Your task to perform on an android device: turn off data saver in the chrome app Image 0: 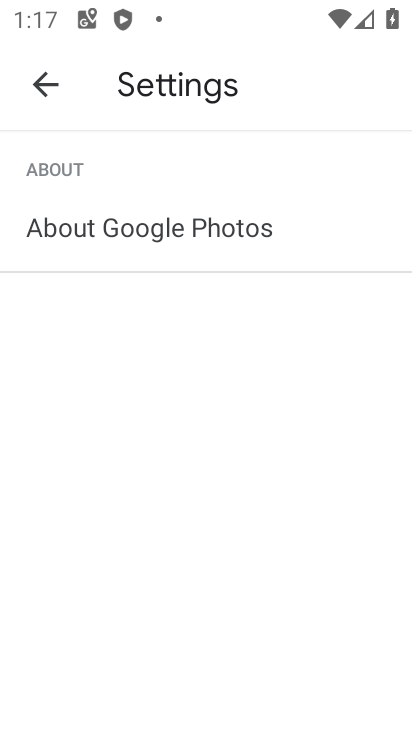
Step 0: press home button
Your task to perform on an android device: turn off data saver in the chrome app Image 1: 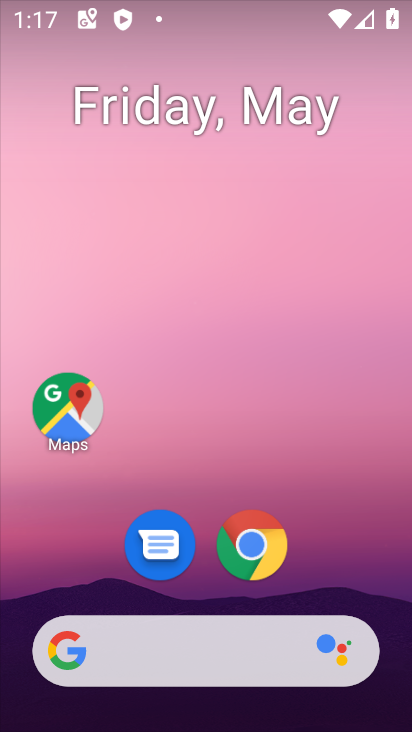
Step 1: drag from (319, 438) to (196, 7)
Your task to perform on an android device: turn off data saver in the chrome app Image 2: 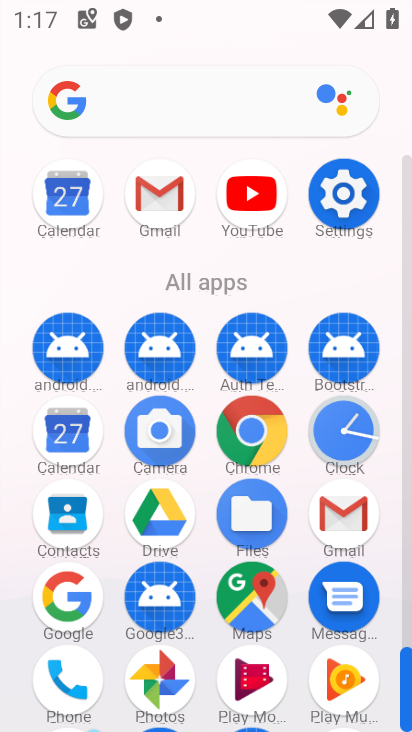
Step 2: click (256, 422)
Your task to perform on an android device: turn off data saver in the chrome app Image 3: 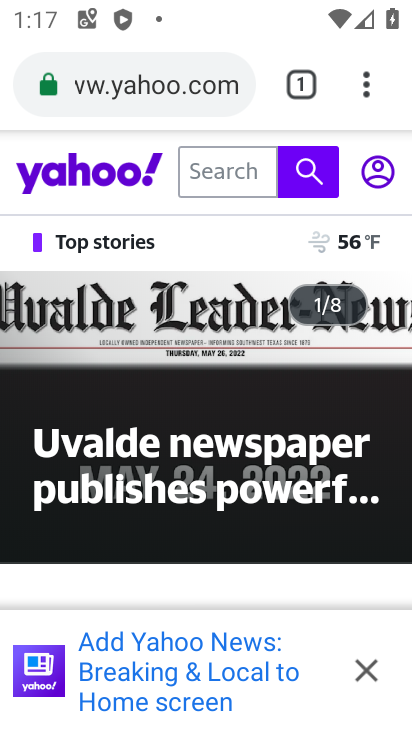
Step 3: click (358, 81)
Your task to perform on an android device: turn off data saver in the chrome app Image 4: 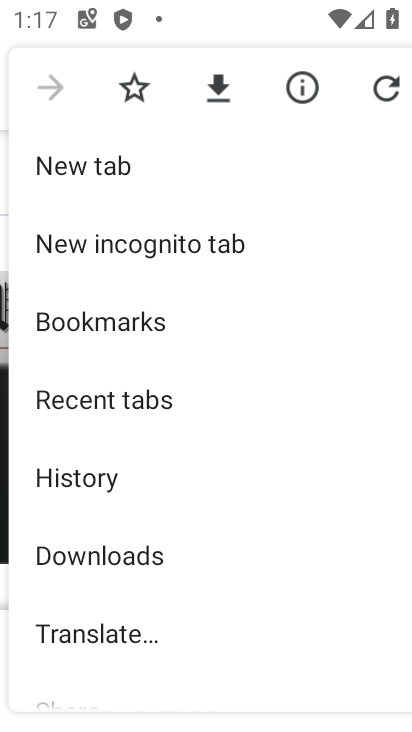
Step 4: drag from (225, 540) to (242, 79)
Your task to perform on an android device: turn off data saver in the chrome app Image 5: 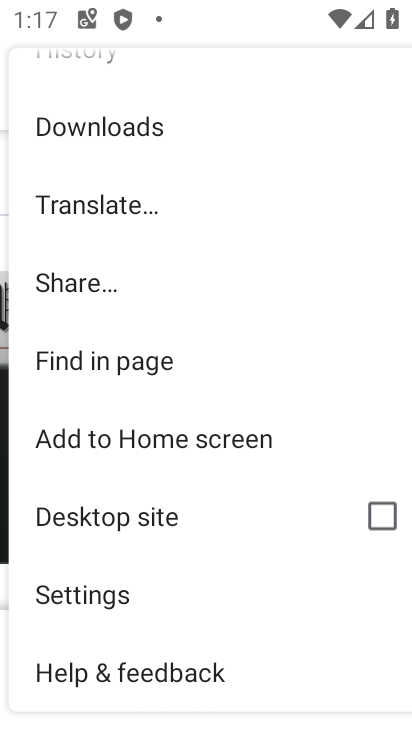
Step 5: click (158, 596)
Your task to perform on an android device: turn off data saver in the chrome app Image 6: 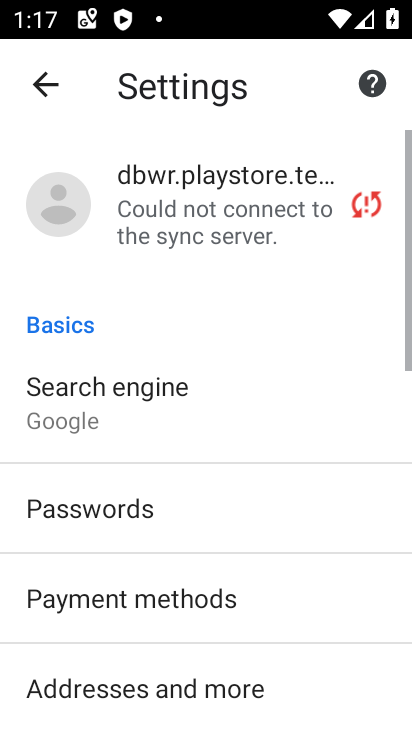
Step 6: drag from (201, 559) to (265, 83)
Your task to perform on an android device: turn off data saver in the chrome app Image 7: 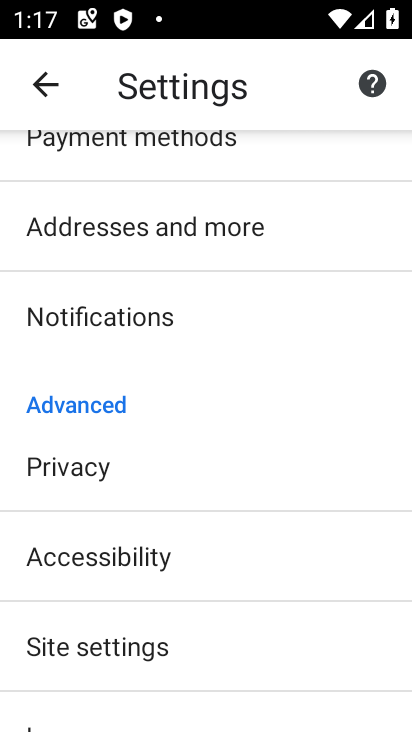
Step 7: drag from (165, 592) to (138, 170)
Your task to perform on an android device: turn off data saver in the chrome app Image 8: 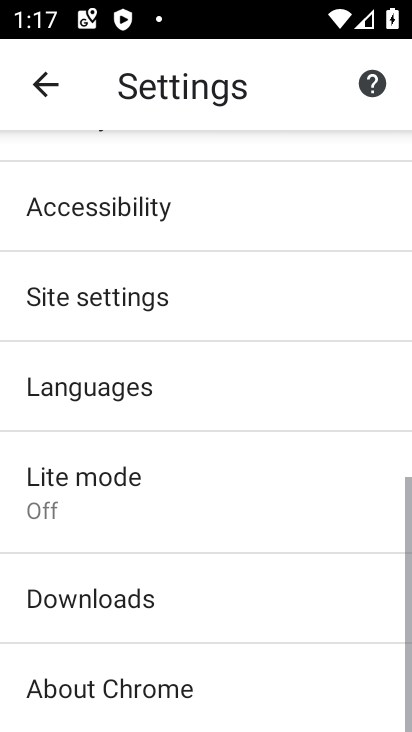
Step 8: click (141, 493)
Your task to perform on an android device: turn off data saver in the chrome app Image 9: 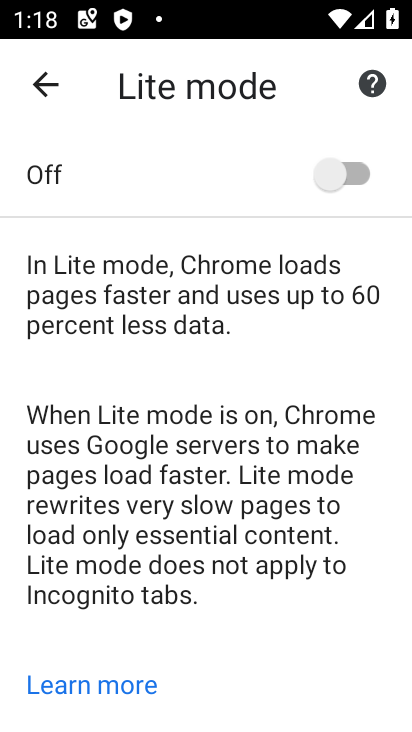
Step 9: task complete